Your task to perform on an android device: Open Amazon Image 0: 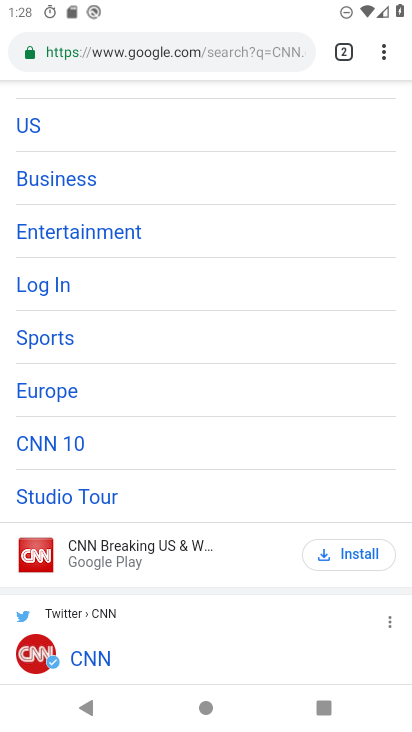
Step 0: click (298, 48)
Your task to perform on an android device: Open Amazon Image 1: 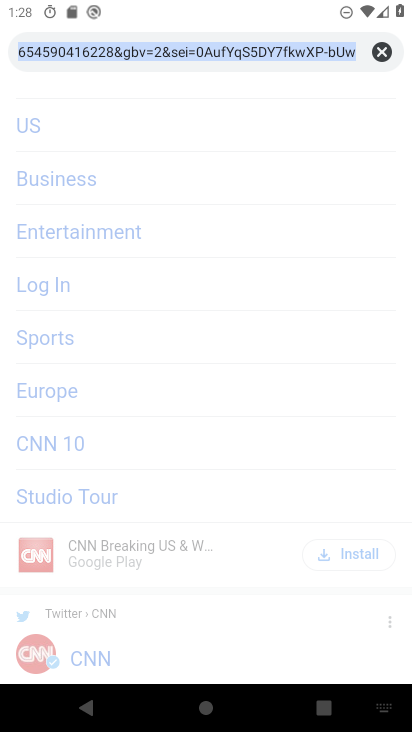
Step 1: click (378, 46)
Your task to perform on an android device: Open Amazon Image 2: 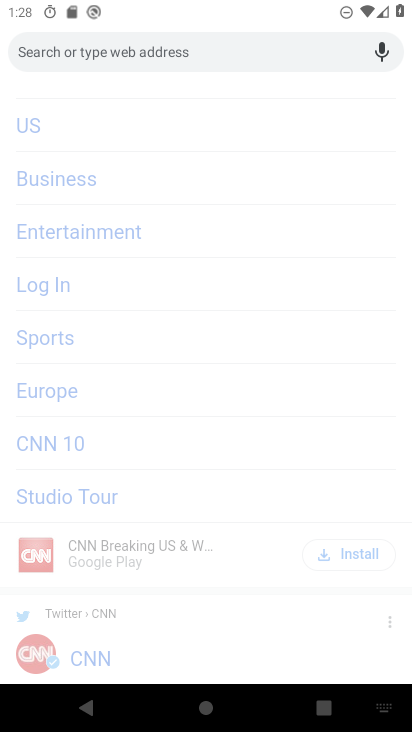
Step 2: type "Amazon"
Your task to perform on an android device: Open Amazon Image 3: 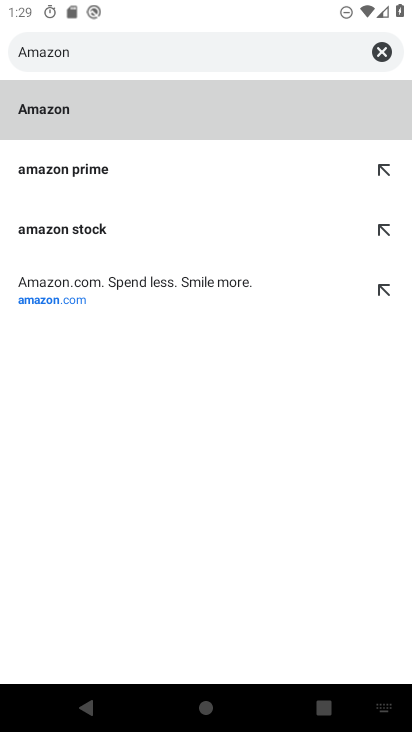
Step 3: click (80, 102)
Your task to perform on an android device: Open Amazon Image 4: 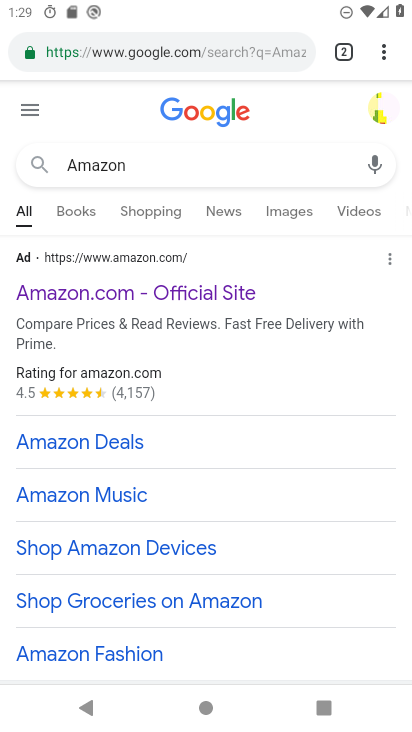
Step 4: task complete